Your task to perform on an android device: install app "Microsoft Authenticator" Image 0: 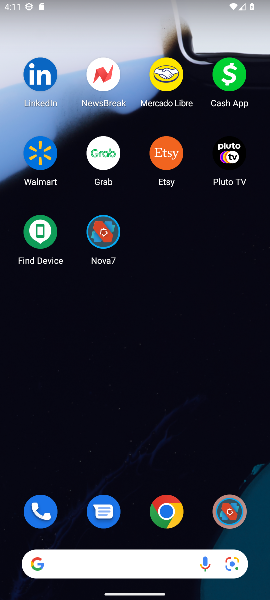
Step 0: click (170, 84)
Your task to perform on an android device: install app "Microsoft Authenticator" Image 1: 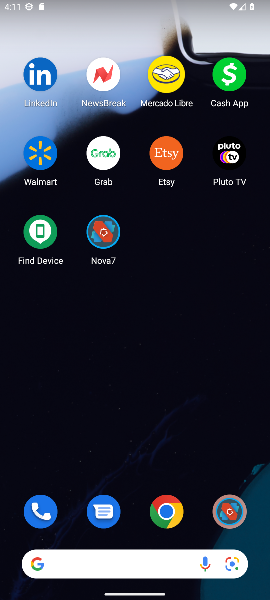
Step 1: drag from (124, 430) to (124, 42)
Your task to perform on an android device: install app "Microsoft Authenticator" Image 2: 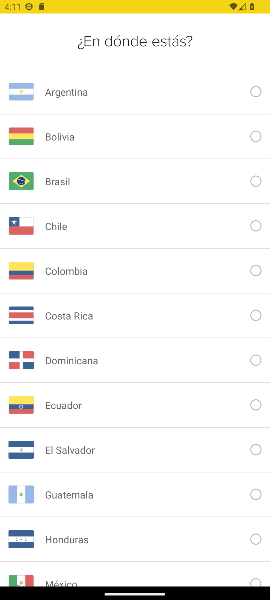
Step 2: press home button
Your task to perform on an android device: install app "Microsoft Authenticator" Image 3: 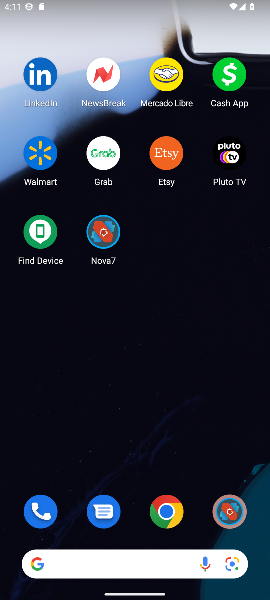
Step 3: drag from (136, 185) to (136, 88)
Your task to perform on an android device: install app "Microsoft Authenticator" Image 4: 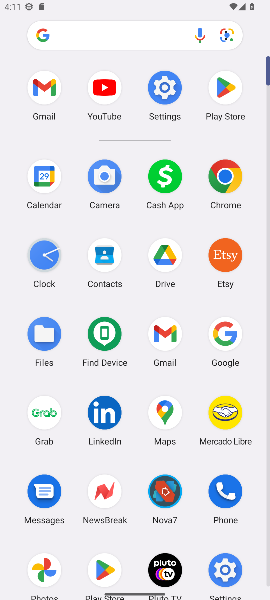
Step 4: click (219, 88)
Your task to perform on an android device: install app "Microsoft Authenticator" Image 5: 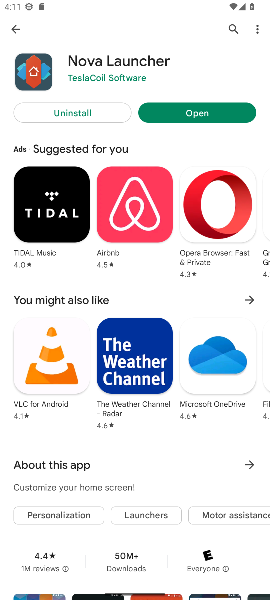
Step 5: click (16, 26)
Your task to perform on an android device: install app "Microsoft Authenticator" Image 6: 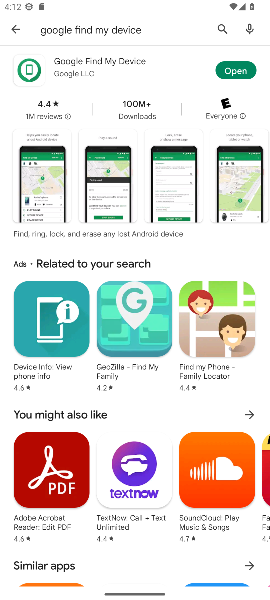
Step 6: click (16, 27)
Your task to perform on an android device: install app "Microsoft Authenticator" Image 7: 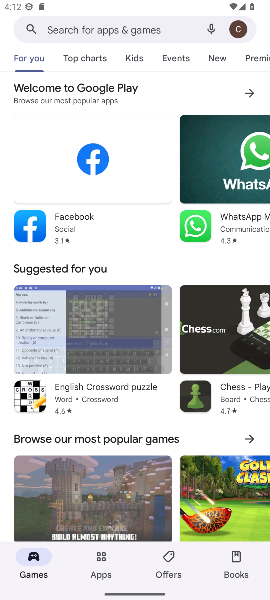
Step 7: click (56, 29)
Your task to perform on an android device: install app "Microsoft Authenticator" Image 8: 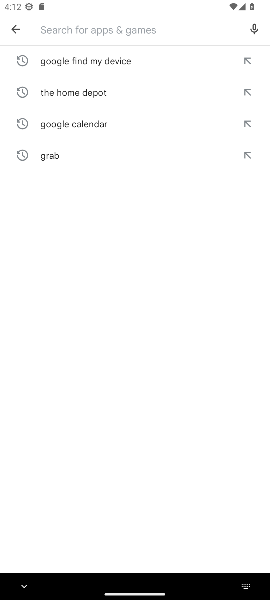
Step 8: type "Microsoft Authenticator"
Your task to perform on an android device: install app "Microsoft Authenticator" Image 9: 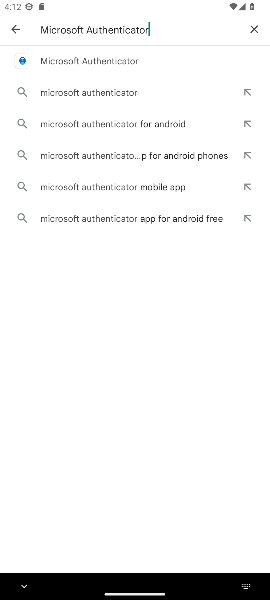
Step 9: click (65, 59)
Your task to perform on an android device: install app "Microsoft Authenticator" Image 10: 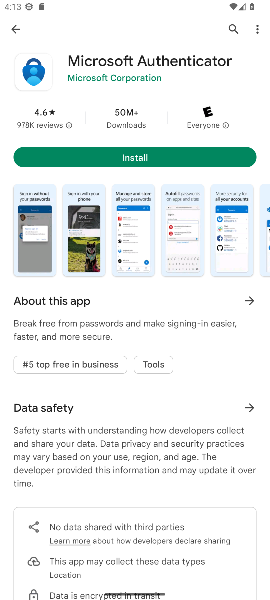
Step 10: click (140, 160)
Your task to perform on an android device: install app "Microsoft Authenticator" Image 11: 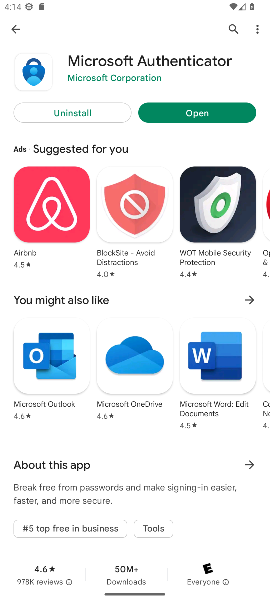
Step 11: click (181, 112)
Your task to perform on an android device: install app "Microsoft Authenticator" Image 12: 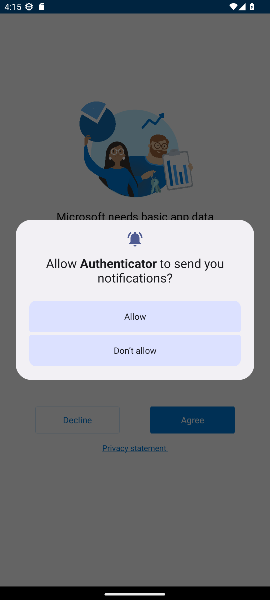
Step 12: task complete